Your task to perform on an android device: find snoozed emails in the gmail app Image 0: 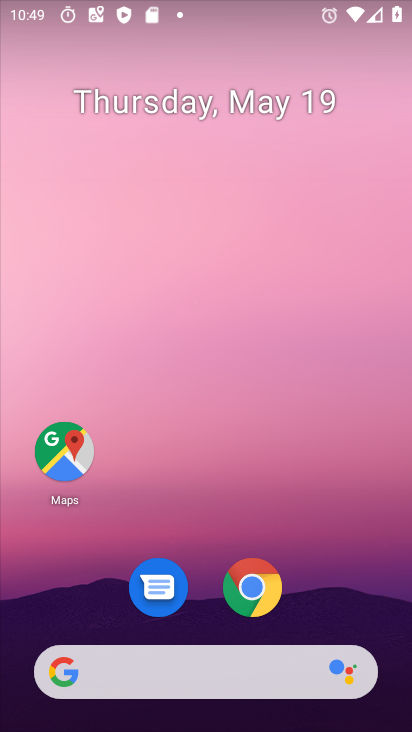
Step 0: drag from (366, 615) to (330, 227)
Your task to perform on an android device: find snoozed emails in the gmail app Image 1: 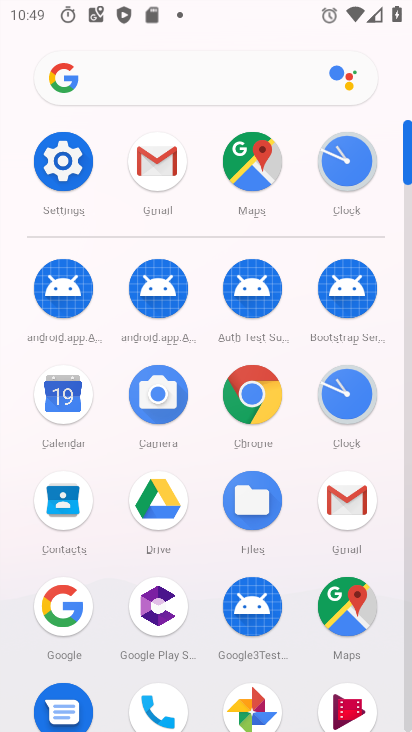
Step 1: click (366, 504)
Your task to perform on an android device: find snoozed emails in the gmail app Image 2: 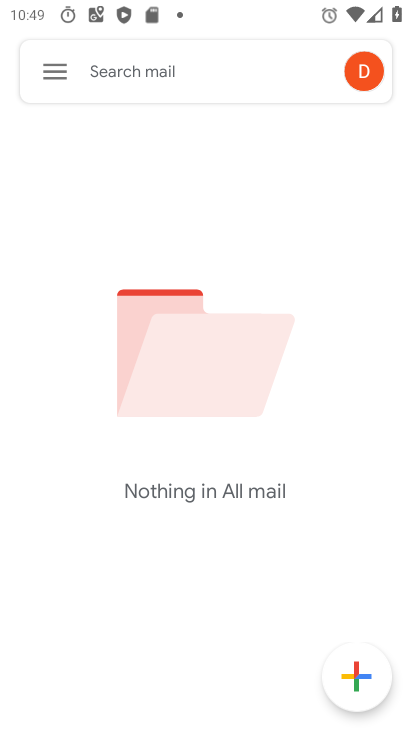
Step 2: click (50, 77)
Your task to perform on an android device: find snoozed emails in the gmail app Image 3: 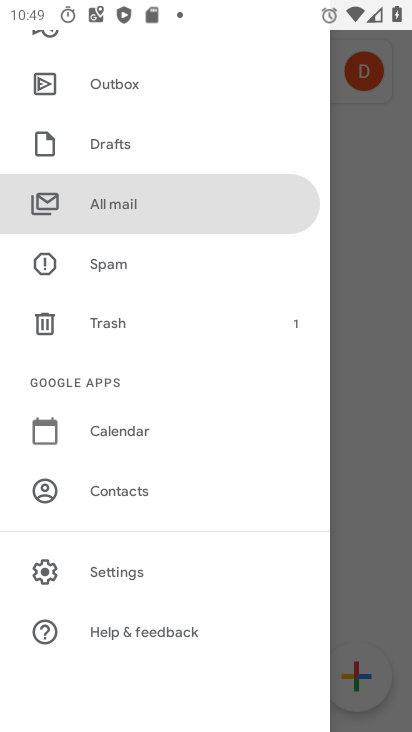
Step 3: drag from (160, 188) to (187, 643)
Your task to perform on an android device: find snoozed emails in the gmail app Image 4: 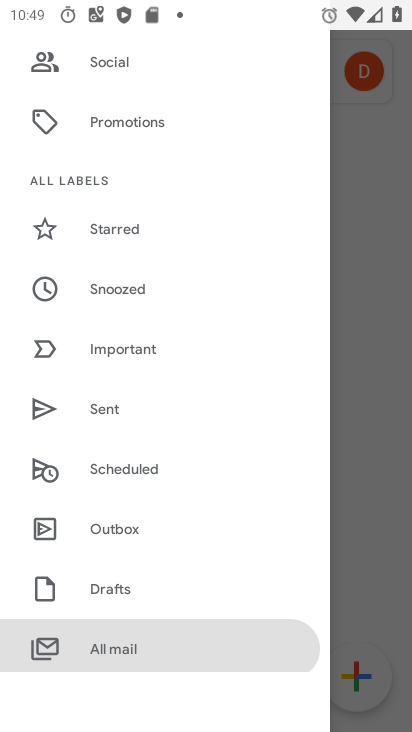
Step 4: click (169, 290)
Your task to perform on an android device: find snoozed emails in the gmail app Image 5: 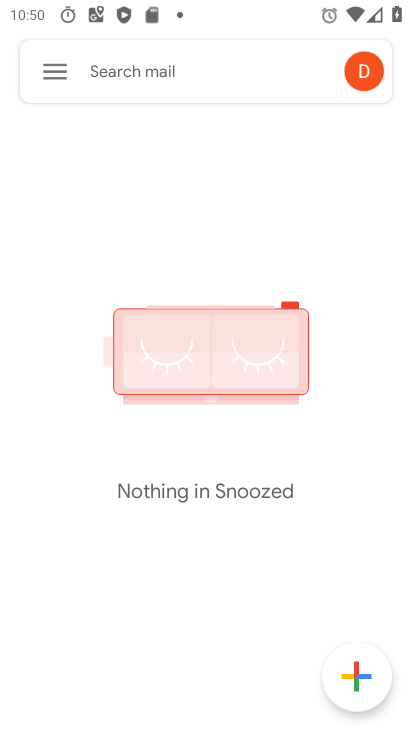
Step 5: task complete